Your task to perform on an android device: delete a single message in the gmail app Image 0: 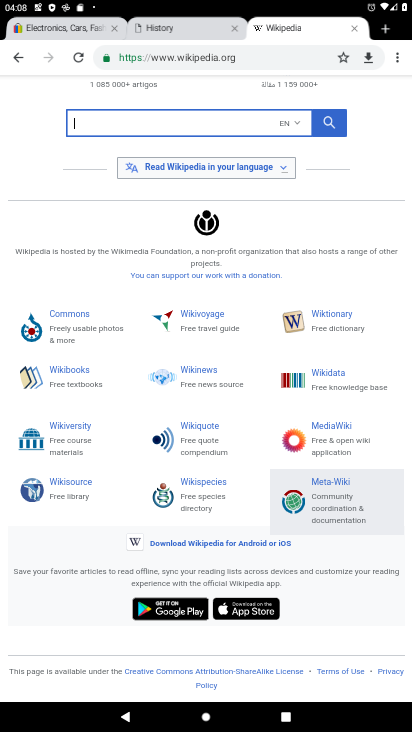
Step 0: press home button
Your task to perform on an android device: delete a single message in the gmail app Image 1: 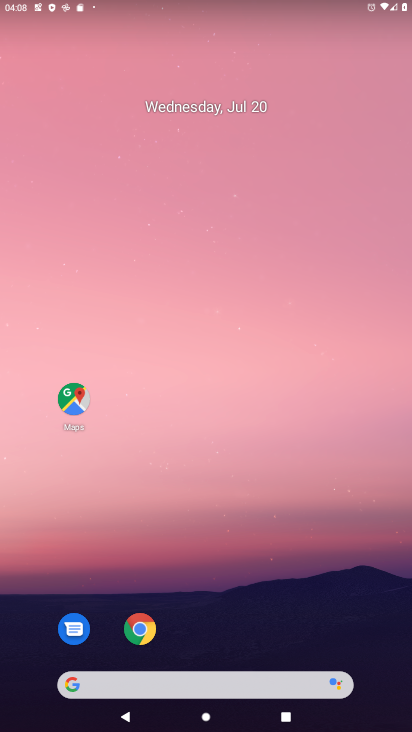
Step 1: drag from (386, 666) to (331, 29)
Your task to perform on an android device: delete a single message in the gmail app Image 2: 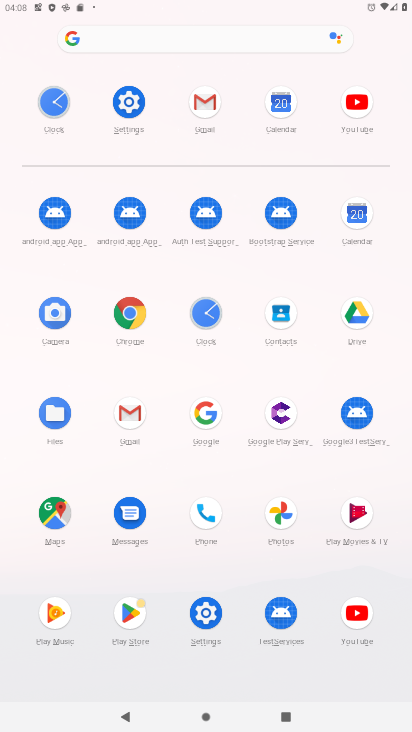
Step 2: click (128, 415)
Your task to perform on an android device: delete a single message in the gmail app Image 3: 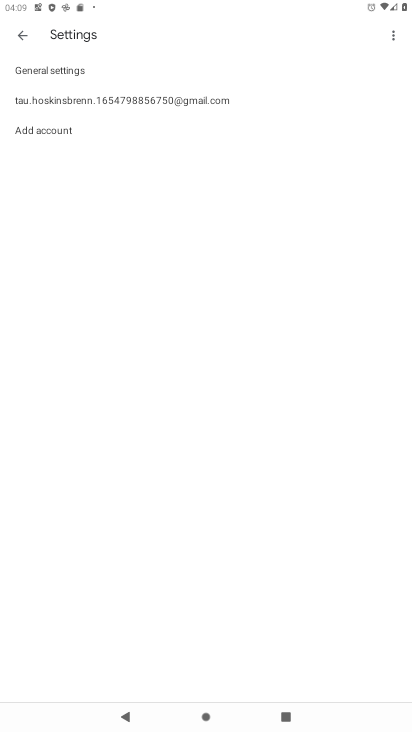
Step 3: press back button
Your task to perform on an android device: delete a single message in the gmail app Image 4: 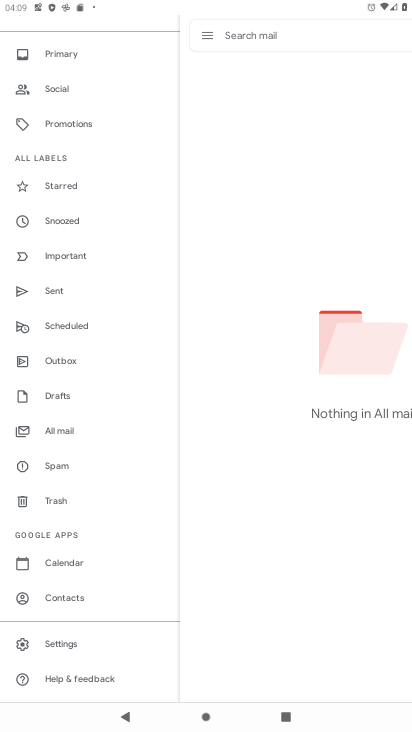
Step 4: click (56, 430)
Your task to perform on an android device: delete a single message in the gmail app Image 5: 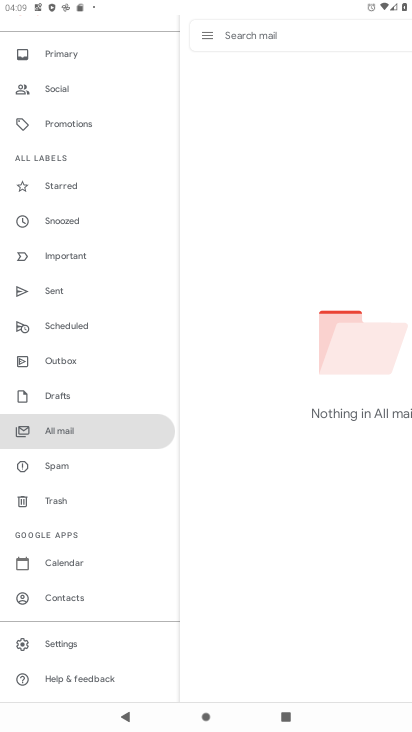
Step 5: task complete